Your task to perform on an android device: Open settings Image 0: 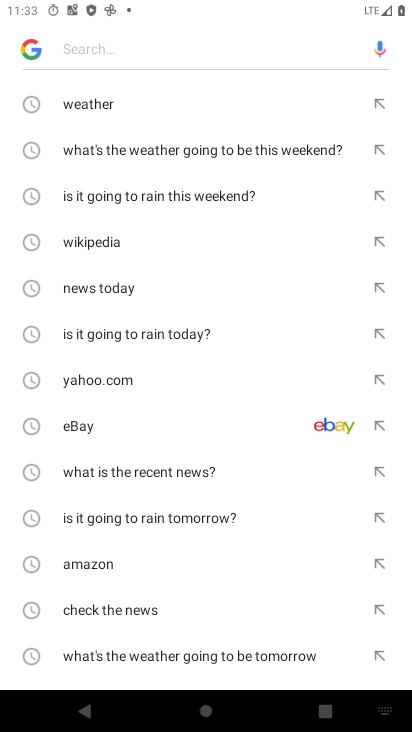
Step 0: press home button
Your task to perform on an android device: Open settings Image 1: 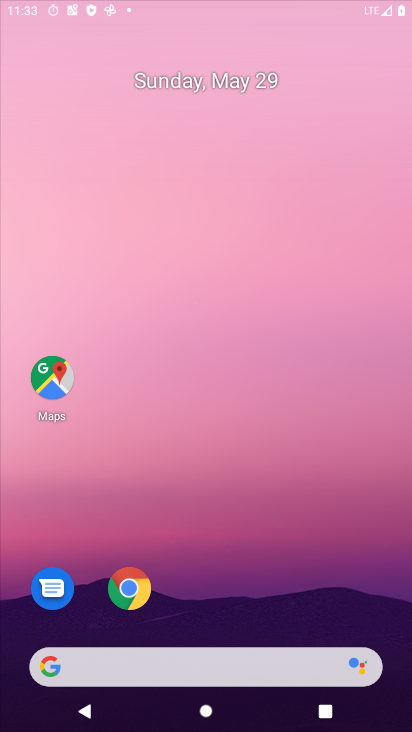
Step 1: drag from (227, 536) to (280, 111)
Your task to perform on an android device: Open settings Image 2: 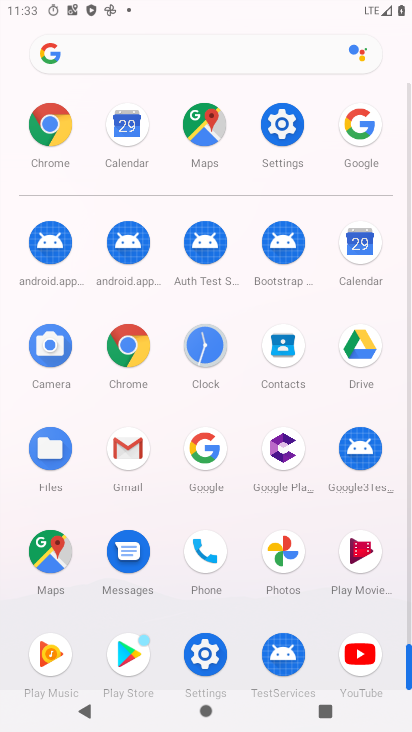
Step 2: click (206, 643)
Your task to perform on an android device: Open settings Image 3: 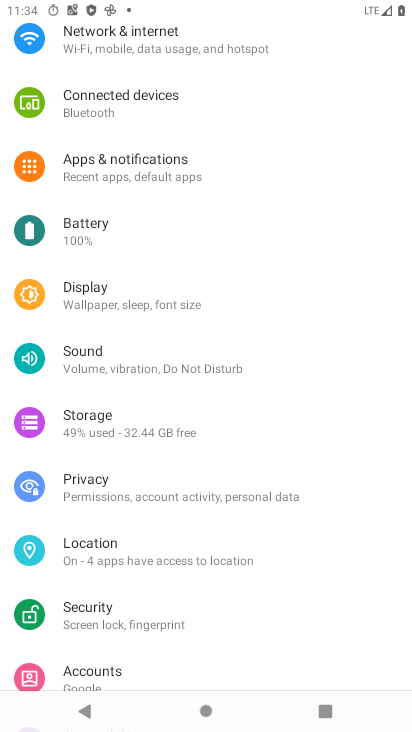
Step 3: task complete